Your task to perform on an android device: Open location settings Image 0: 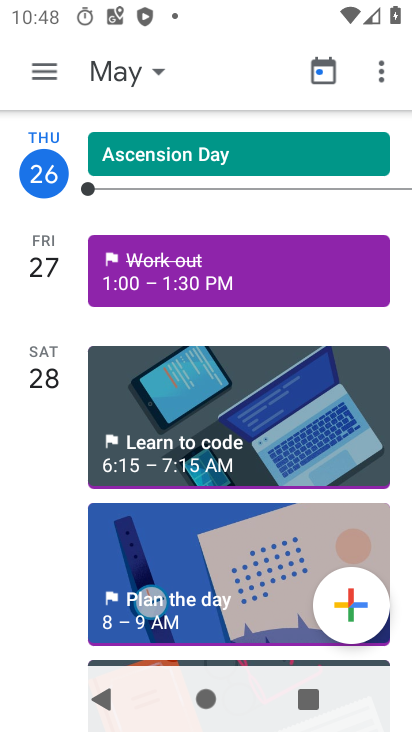
Step 0: press home button
Your task to perform on an android device: Open location settings Image 1: 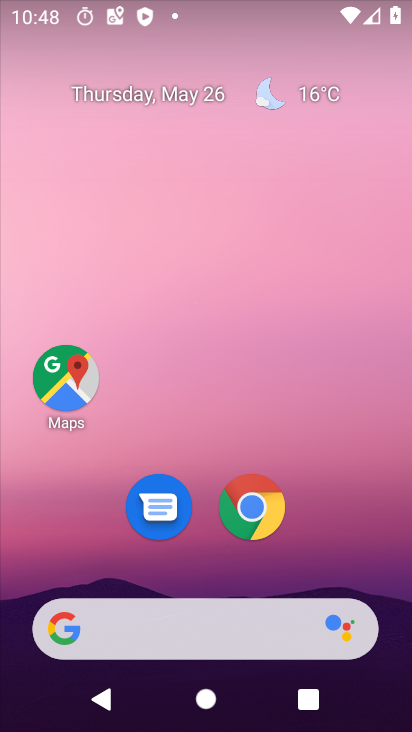
Step 1: drag from (200, 572) to (228, 216)
Your task to perform on an android device: Open location settings Image 2: 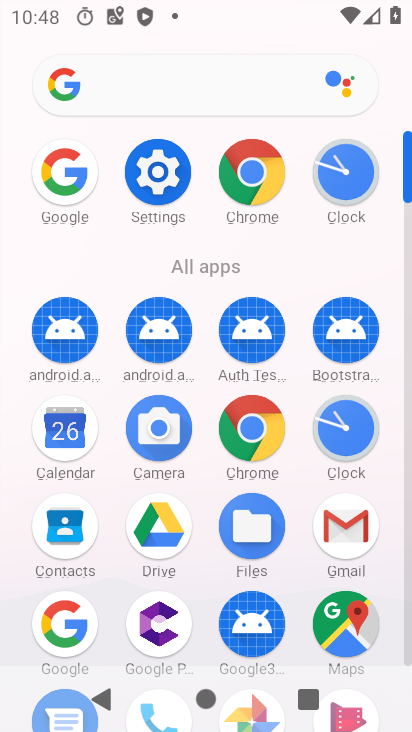
Step 2: click (142, 183)
Your task to perform on an android device: Open location settings Image 3: 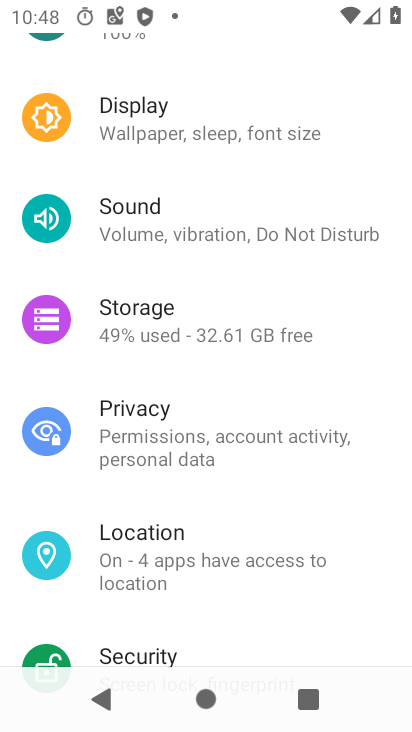
Step 3: click (201, 557)
Your task to perform on an android device: Open location settings Image 4: 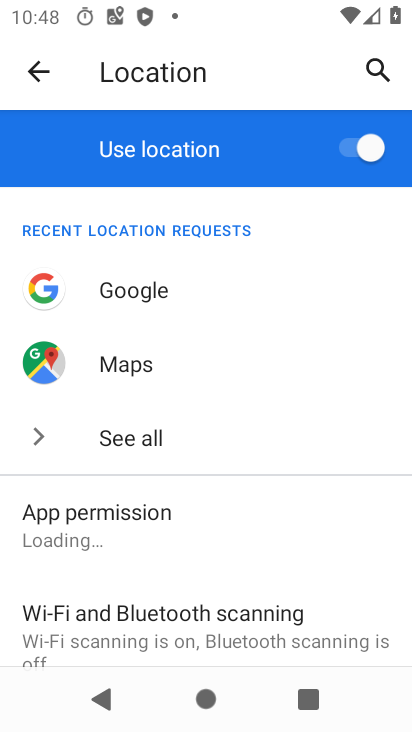
Step 4: drag from (207, 600) to (229, 320)
Your task to perform on an android device: Open location settings Image 5: 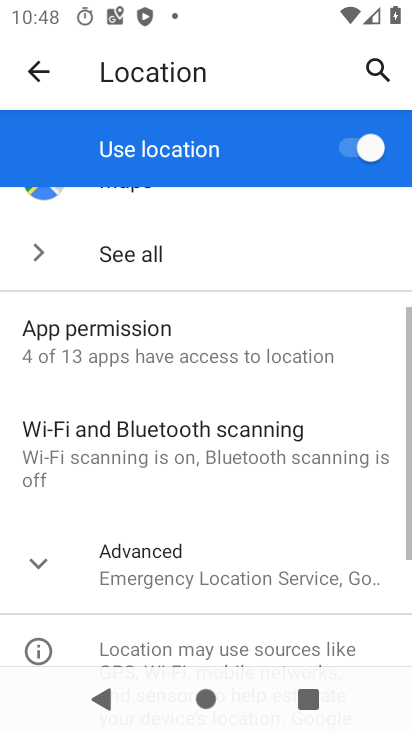
Step 5: click (184, 578)
Your task to perform on an android device: Open location settings Image 6: 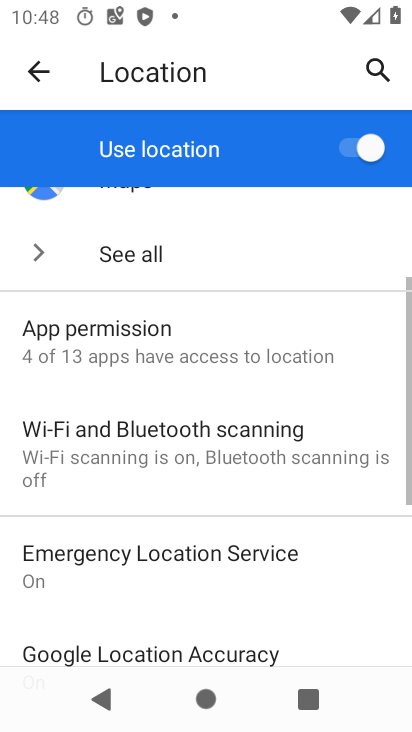
Step 6: task complete